Your task to perform on an android device: Open a new private window in the chrome app Image 0: 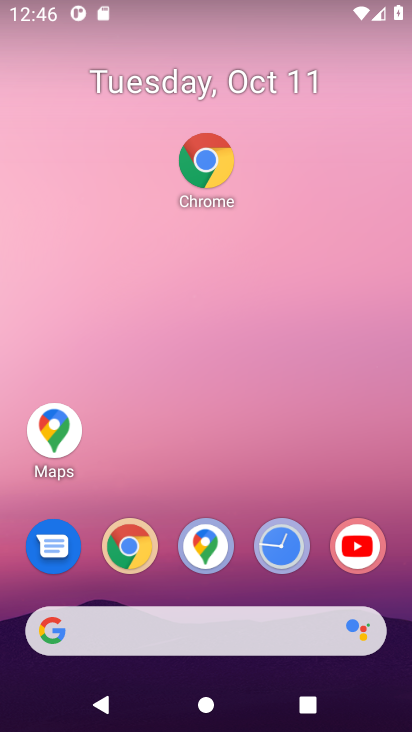
Step 0: click (121, 546)
Your task to perform on an android device: Open a new private window in the chrome app Image 1: 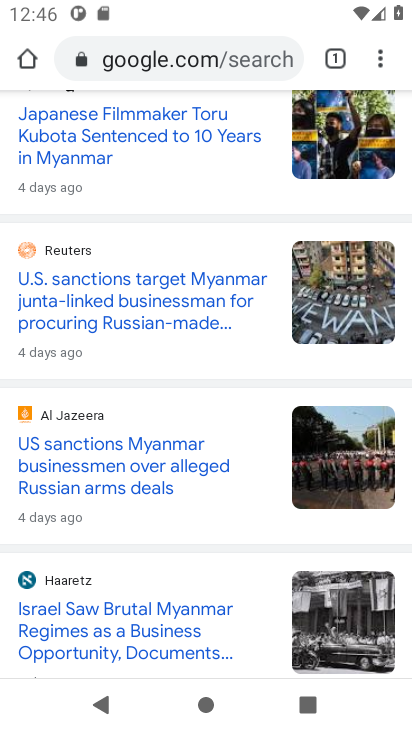
Step 1: click (385, 57)
Your task to perform on an android device: Open a new private window in the chrome app Image 2: 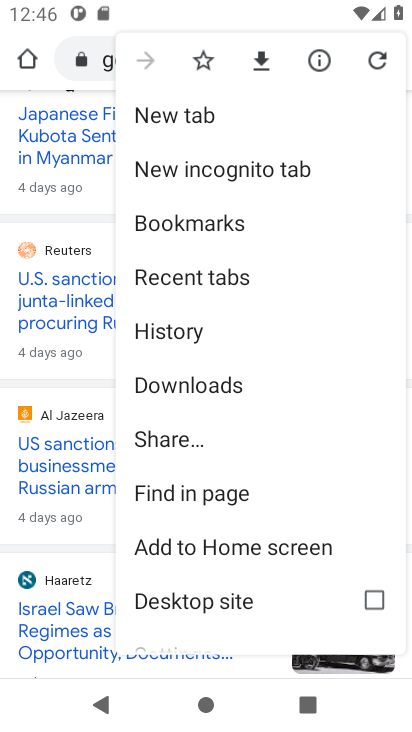
Step 2: click (208, 165)
Your task to perform on an android device: Open a new private window in the chrome app Image 3: 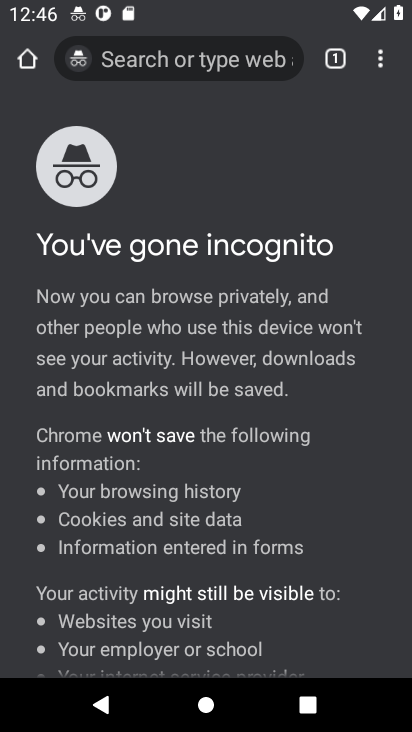
Step 3: task complete